Your task to perform on an android device: open chrome privacy settings Image 0: 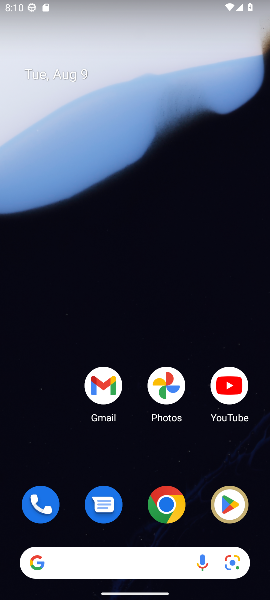
Step 0: click (158, 501)
Your task to perform on an android device: open chrome privacy settings Image 1: 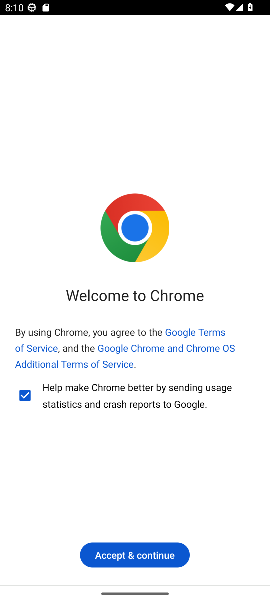
Step 1: click (149, 552)
Your task to perform on an android device: open chrome privacy settings Image 2: 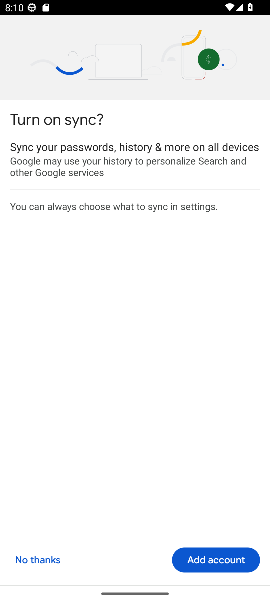
Step 2: click (34, 555)
Your task to perform on an android device: open chrome privacy settings Image 3: 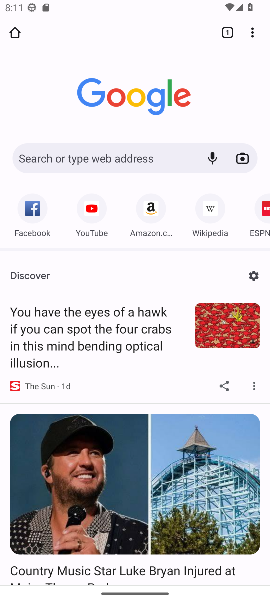
Step 3: click (243, 30)
Your task to perform on an android device: open chrome privacy settings Image 4: 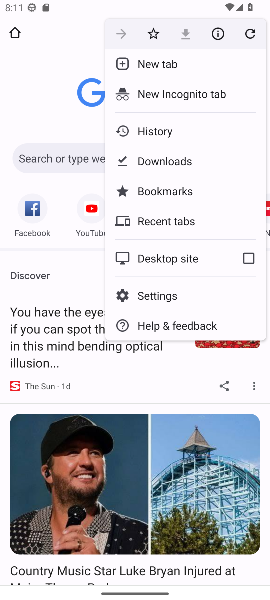
Step 4: click (160, 288)
Your task to perform on an android device: open chrome privacy settings Image 5: 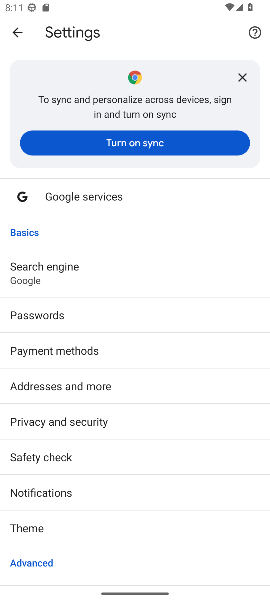
Step 5: click (54, 418)
Your task to perform on an android device: open chrome privacy settings Image 6: 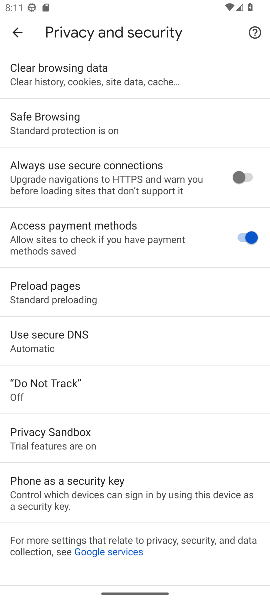
Step 6: task complete